Your task to perform on an android device: open sync settings in chrome Image 0: 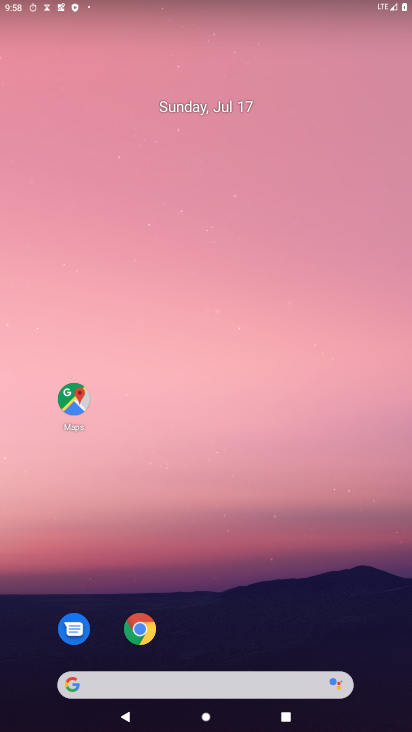
Step 0: drag from (237, 722) to (231, 200)
Your task to perform on an android device: open sync settings in chrome Image 1: 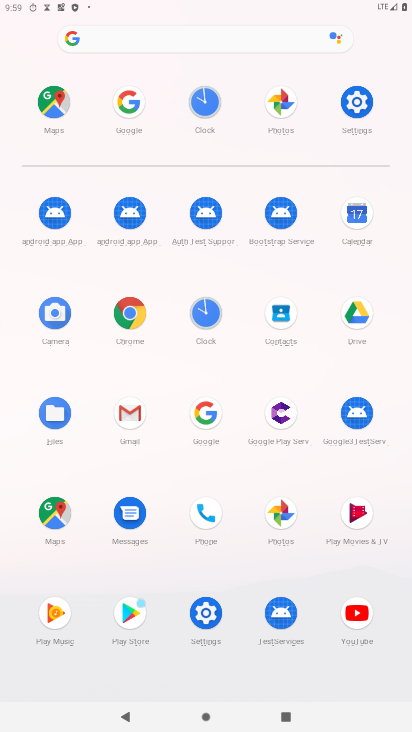
Step 1: click (133, 318)
Your task to perform on an android device: open sync settings in chrome Image 2: 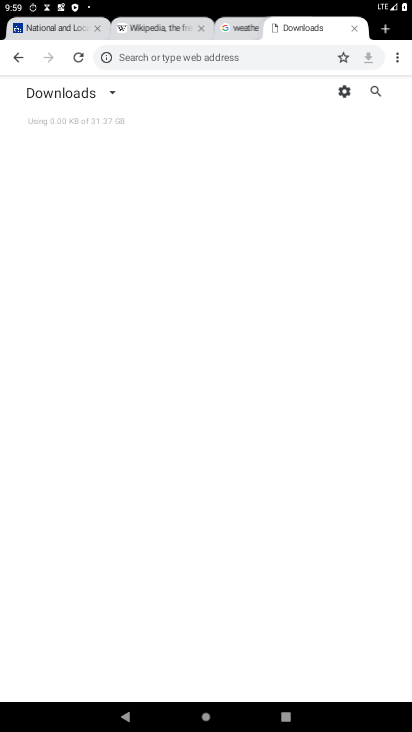
Step 2: click (394, 54)
Your task to perform on an android device: open sync settings in chrome Image 3: 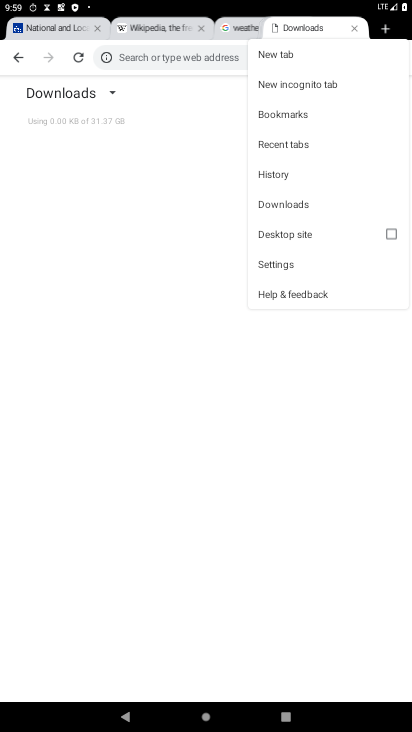
Step 3: click (275, 267)
Your task to perform on an android device: open sync settings in chrome Image 4: 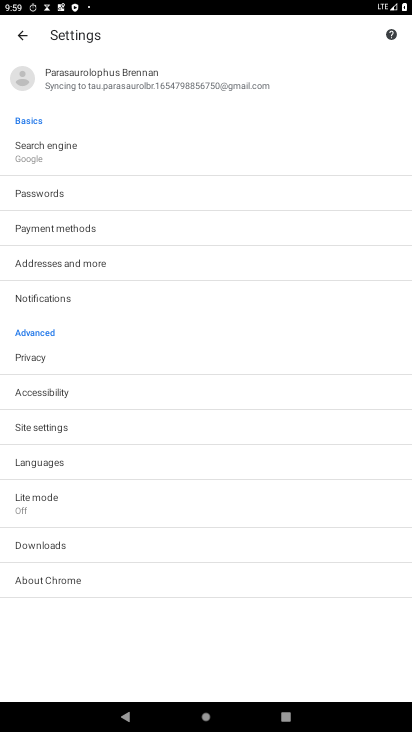
Step 4: click (54, 428)
Your task to perform on an android device: open sync settings in chrome Image 5: 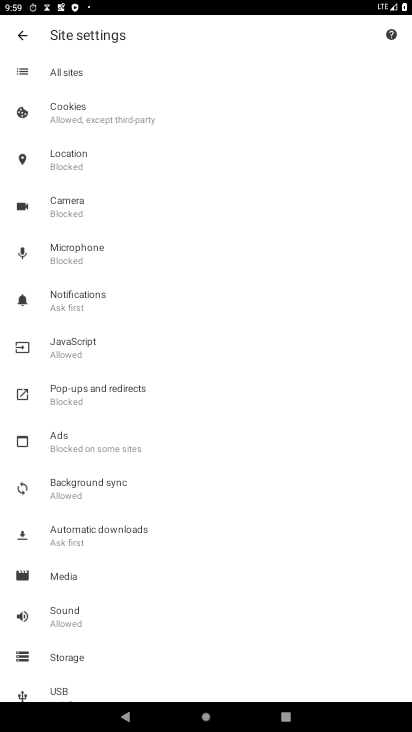
Step 5: click (72, 483)
Your task to perform on an android device: open sync settings in chrome Image 6: 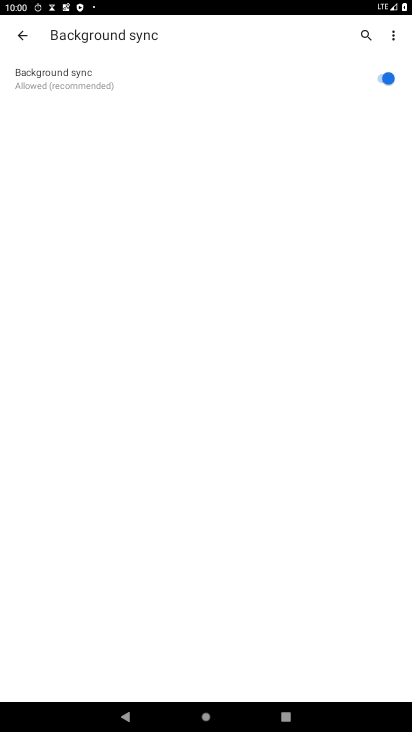
Step 6: task complete